Your task to perform on an android device: open a new tab in the chrome app Image 0: 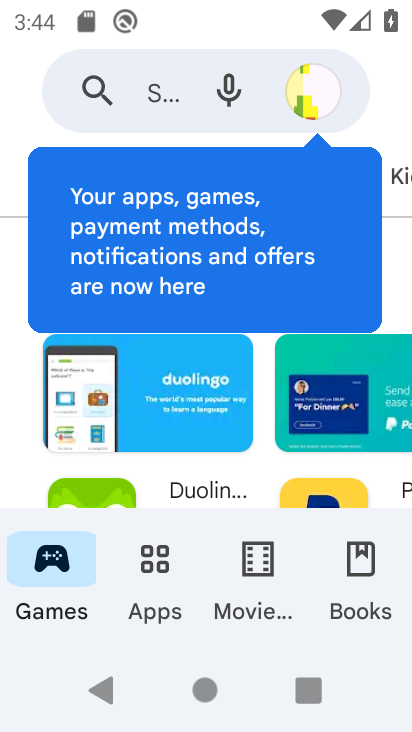
Step 0: press home button
Your task to perform on an android device: open a new tab in the chrome app Image 1: 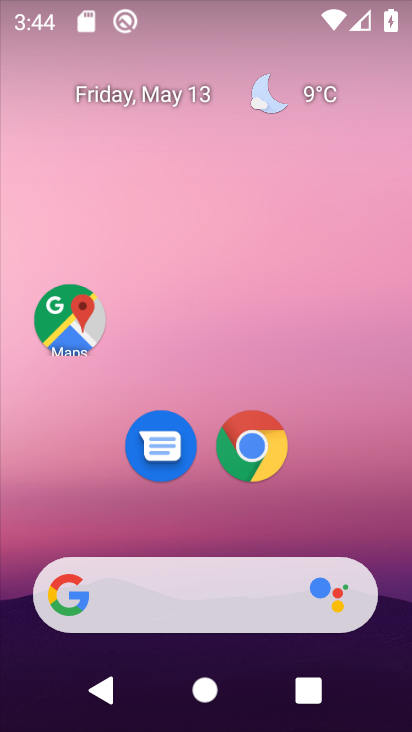
Step 1: click (251, 443)
Your task to perform on an android device: open a new tab in the chrome app Image 2: 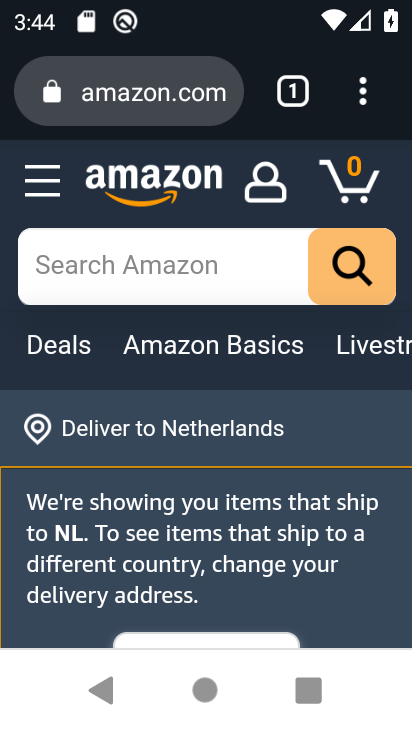
Step 2: click (366, 90)
Your task to perform on an android device: open a new tab in the chrome app Image 3: 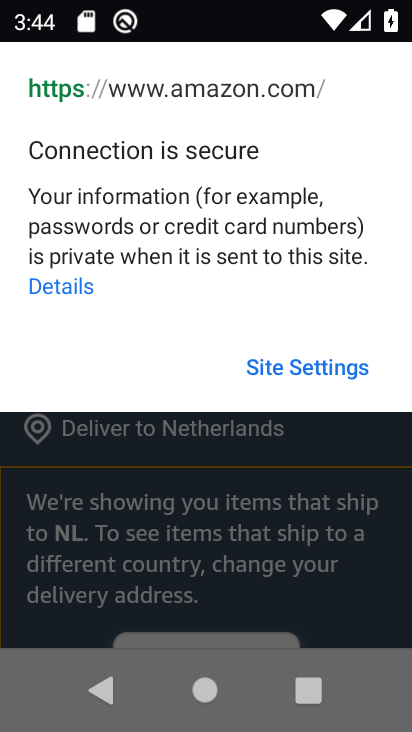
Step 3: click (209, 632)
Your task to perform on an android device: open a new tab in the chrome app Image 4: 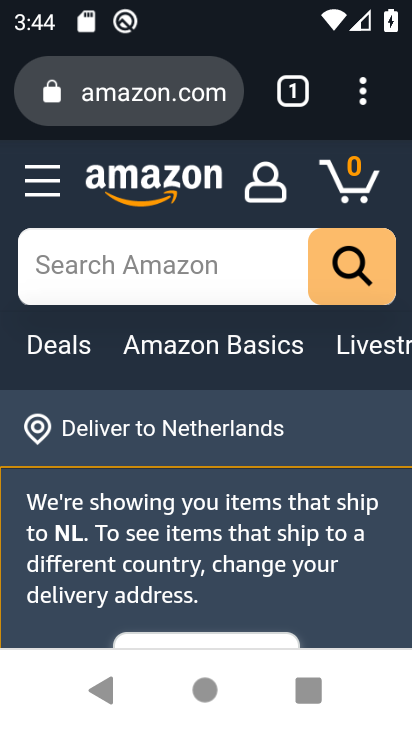
Step 4: click (352, 86)
Your task to perform on an android device: open a new tab in the chrome app Image 5: 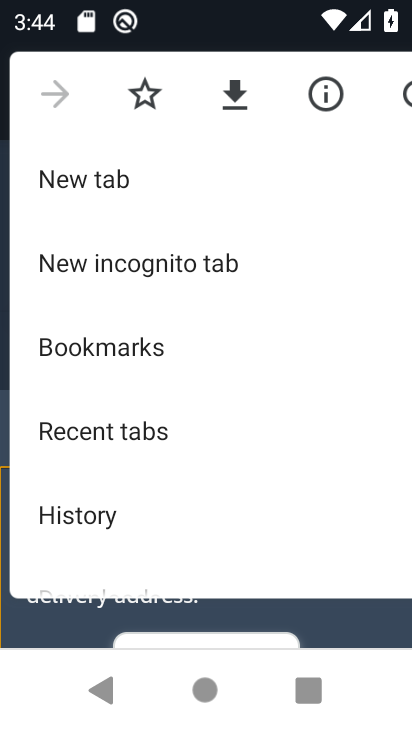
Step 5: drag from (182, 469) to (238, 223)
Your task to perform on an android device: open a new tab in the chrome app Image 6: 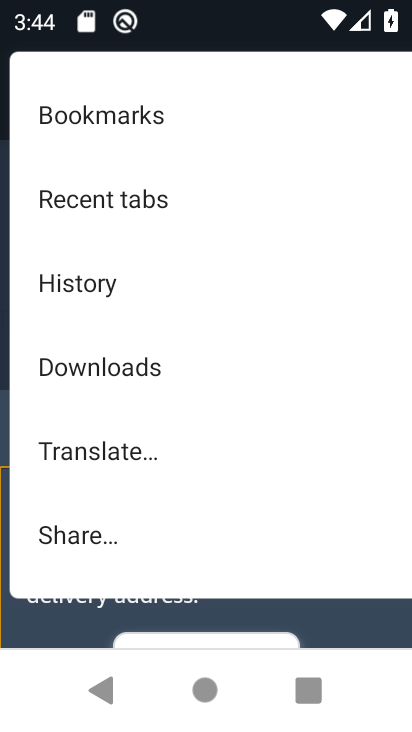
Step 6: drag from (186, 534) to (132, 722)
Your task to perform on an android device: open a new tab in the chrome app Image 7: 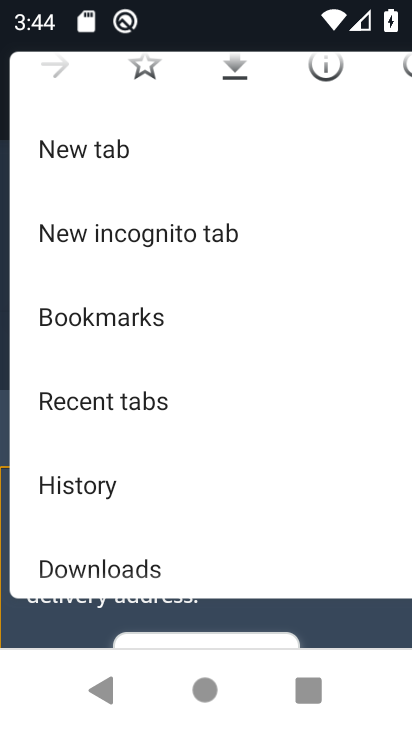
Step 7: click (156, 147)
Your task to perform on an android device: open a new tab in the chrome app Image 8: 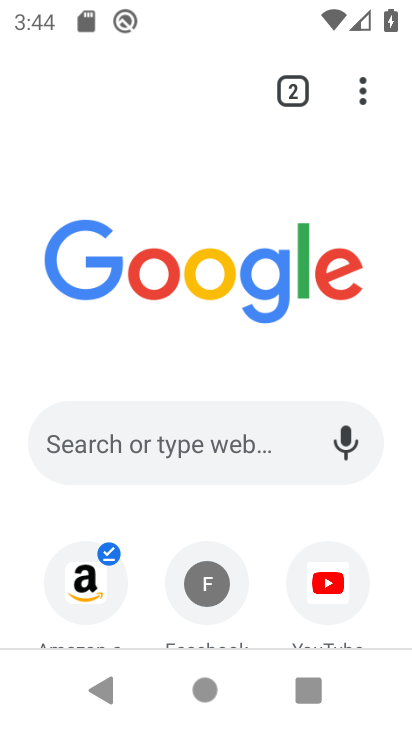
Step 8: task complete